Your task to perform on an android device: open app "Speedtest by Ookla" (install if not already installed) and go to login screen Image 0: 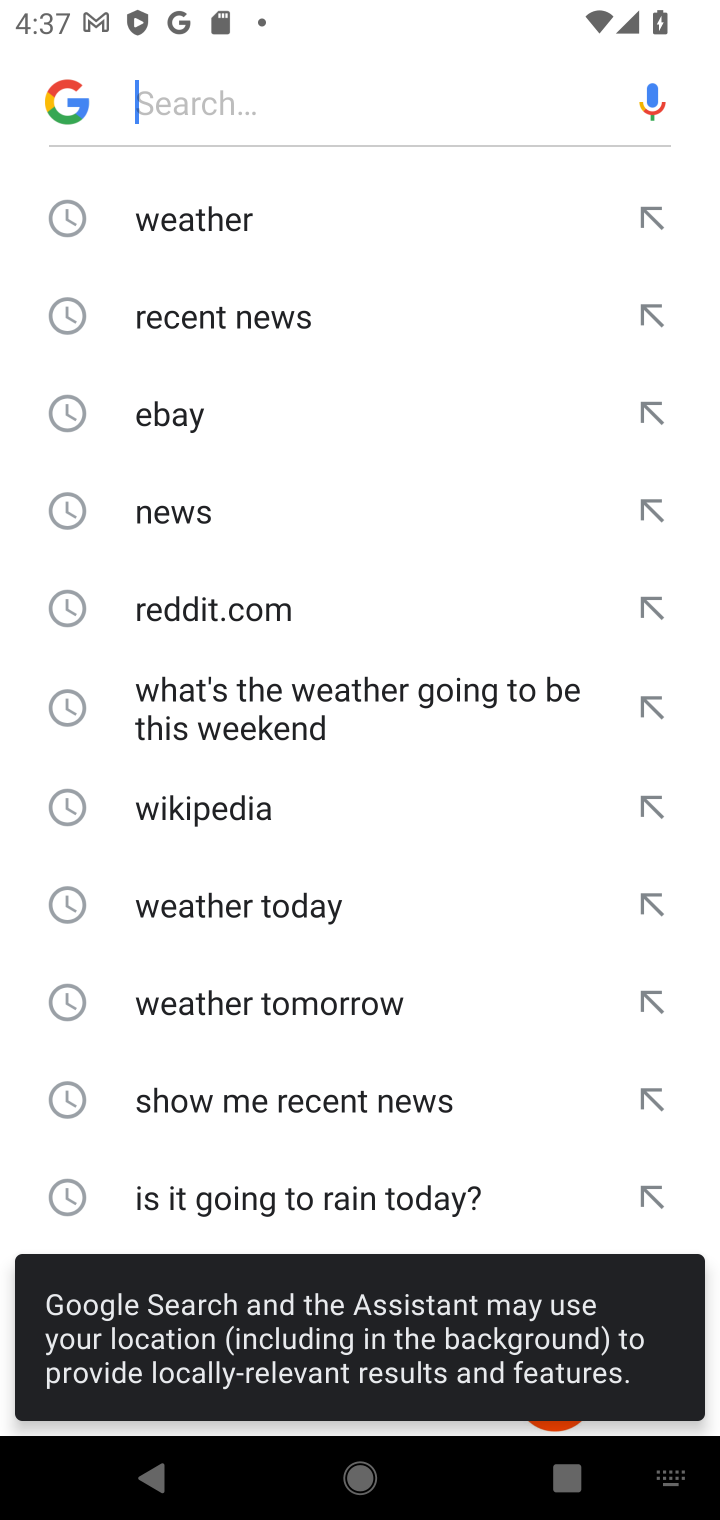
Step 0: press home button
Your task to perform on an android device: open app "Speedtest by Ookla" (install if not already installed) and go to login screen Image 1: 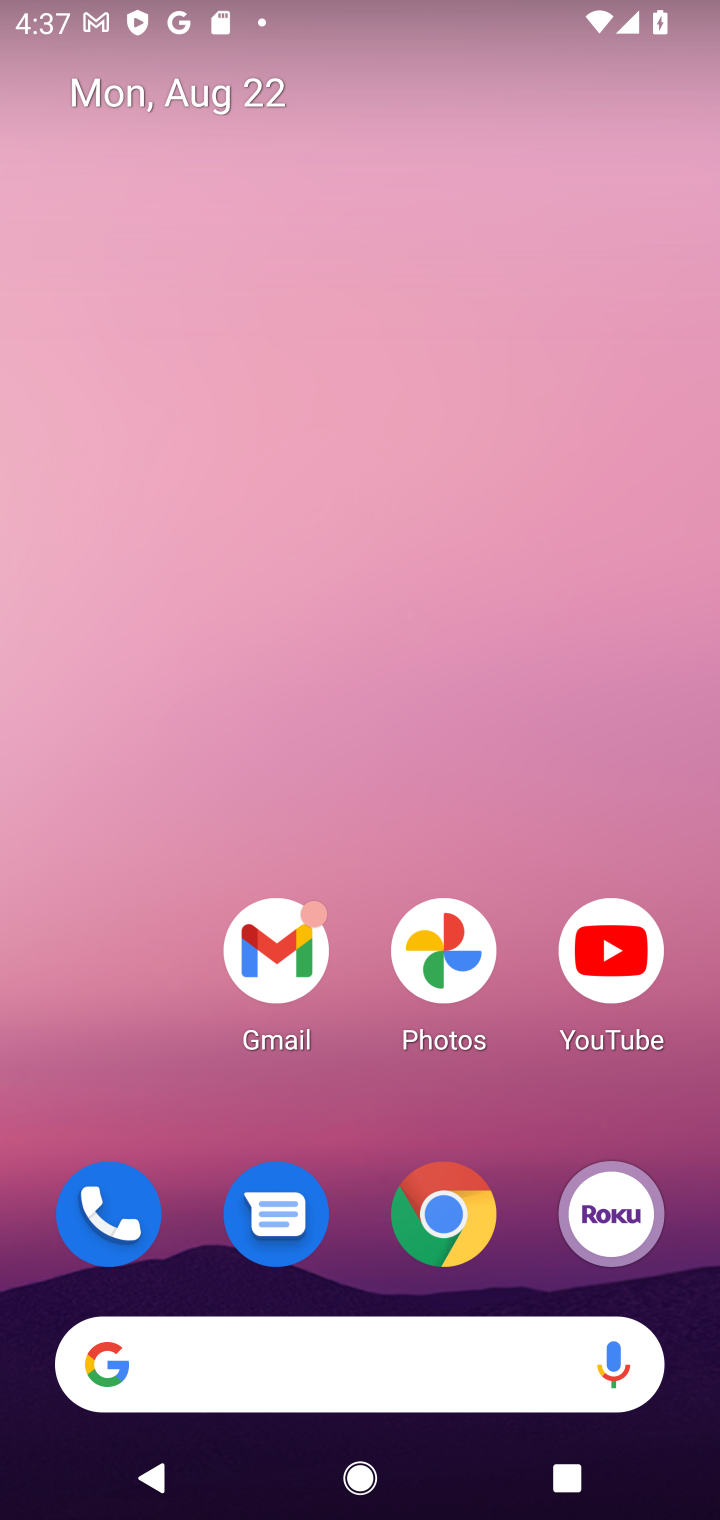
Step 1: drag from (519, 1157) to (527, 334)
Your task to perform on an android device: open app "Speedtest by Ookla" (install if not already installed) and go to login screen Image 2: 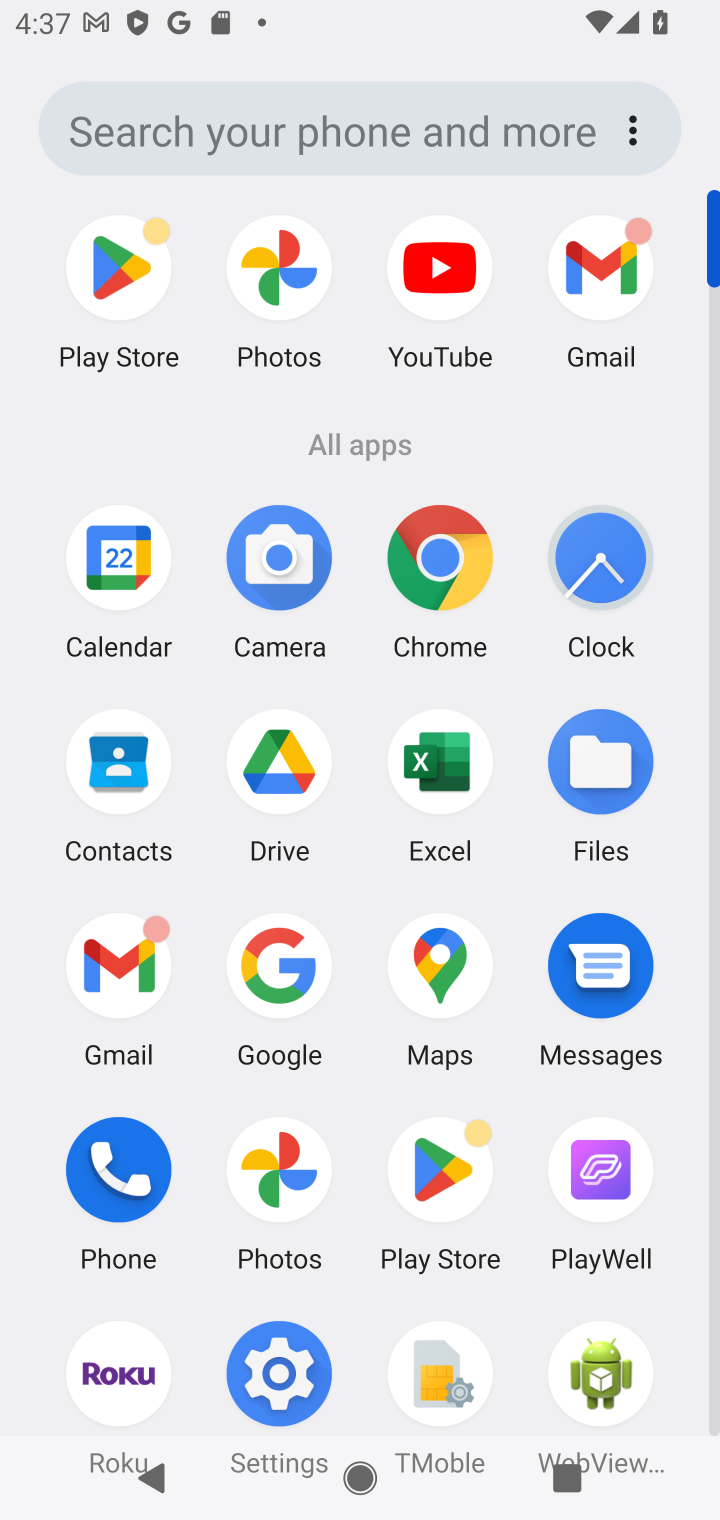
Step 2: click (462, 1161)
Your task to perform on an android device: open app "Speedtest by Ookla" (install if not already installed) and go to login screen Image 3: 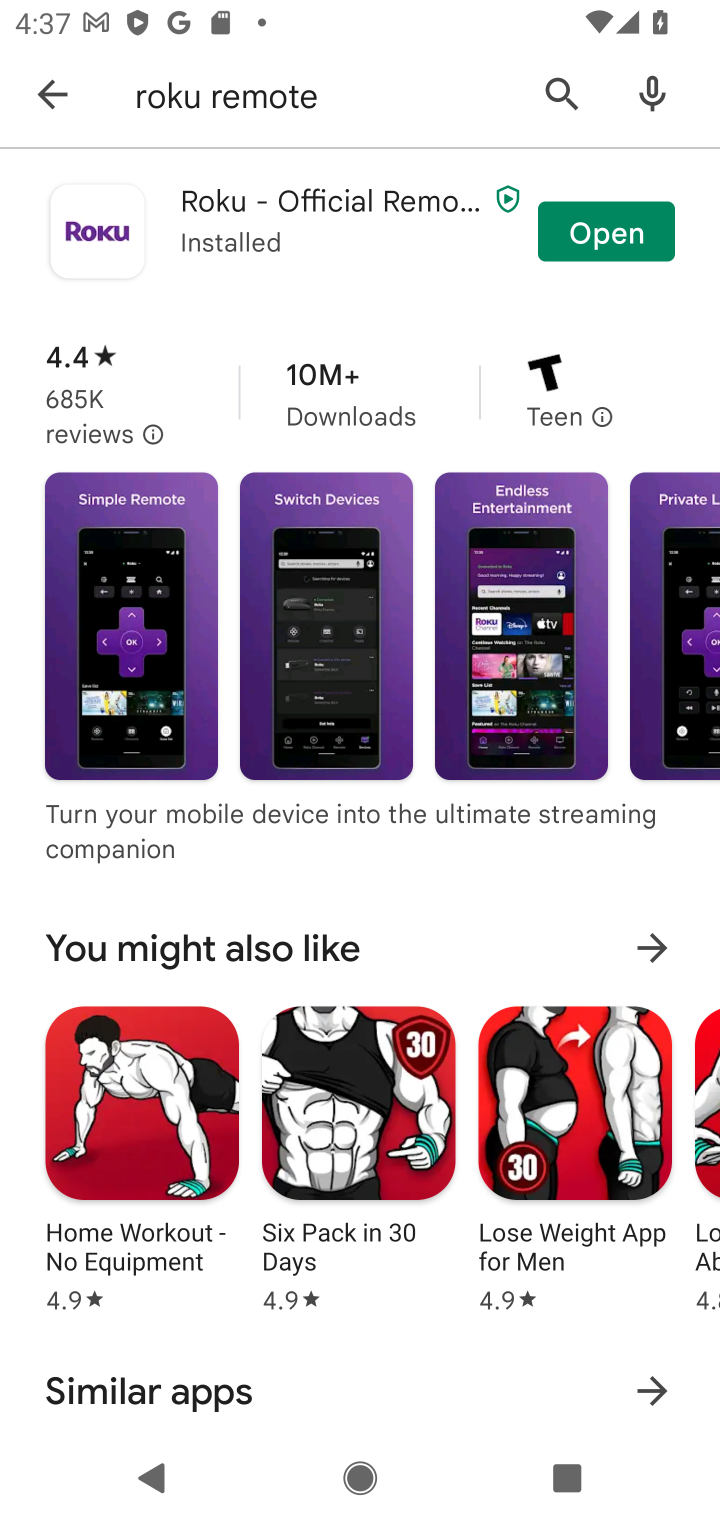
Step 3: click (554, 91)
Your task to perform on an android device: open app "Speedtest by Ookla" (install if not already installed) and go to login screen Image 4: 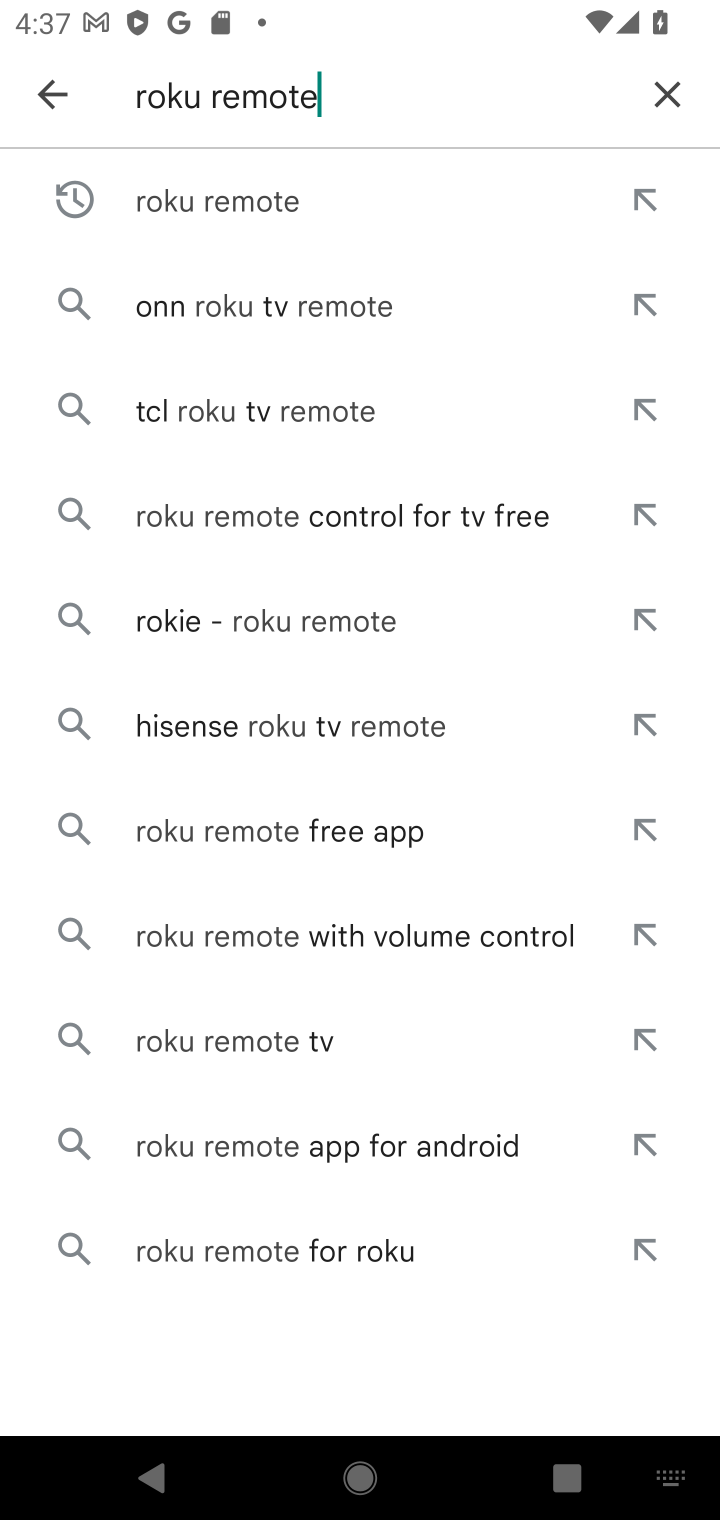
Step 4: click (657, 87)
Your task to perform on an android device: open app "Speedtest by Ookla" (install if not already installed) and go to login screen Image 5: 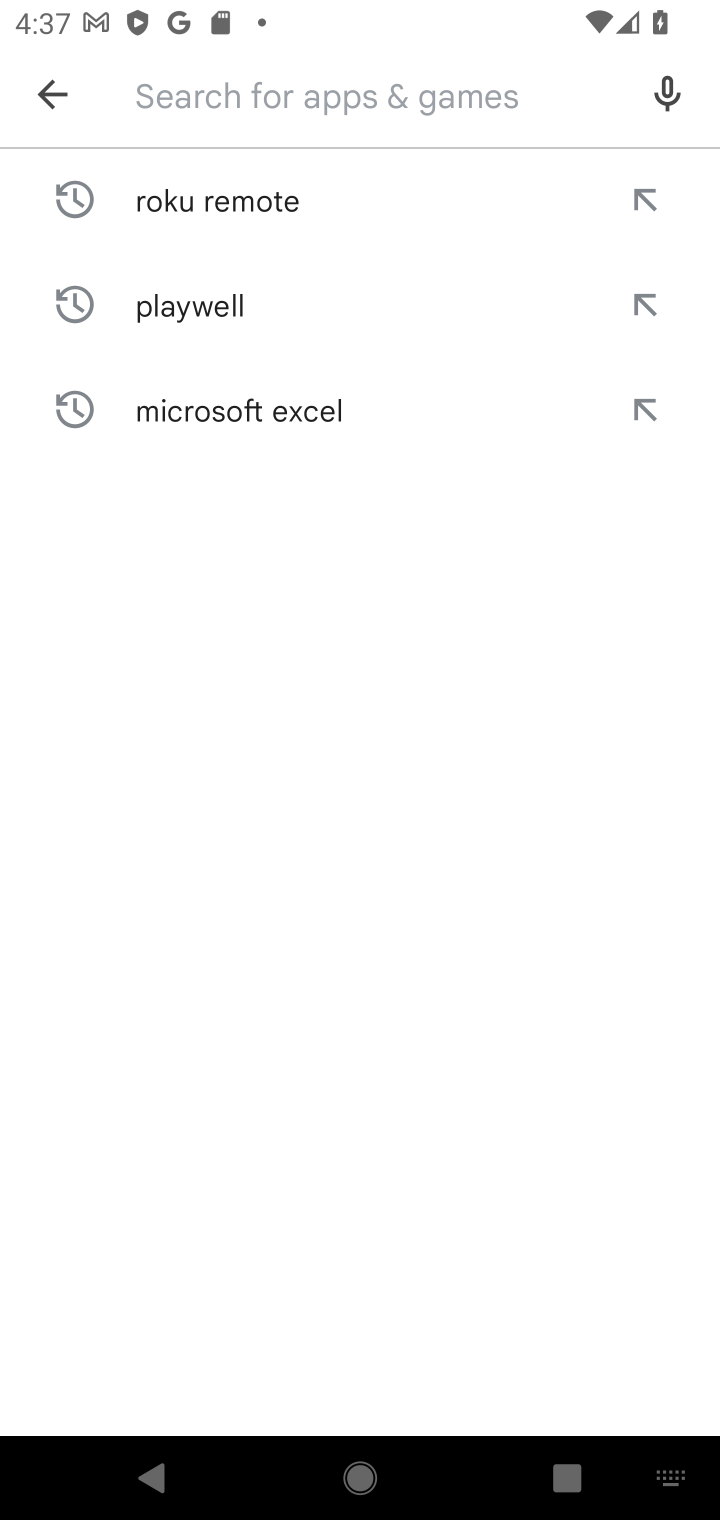
Step 5: type "speed test by ookla"
Your task to perform on an android device: open app "Speedtest by Ookla" (install if not already installed) and go to login screen Image 6: 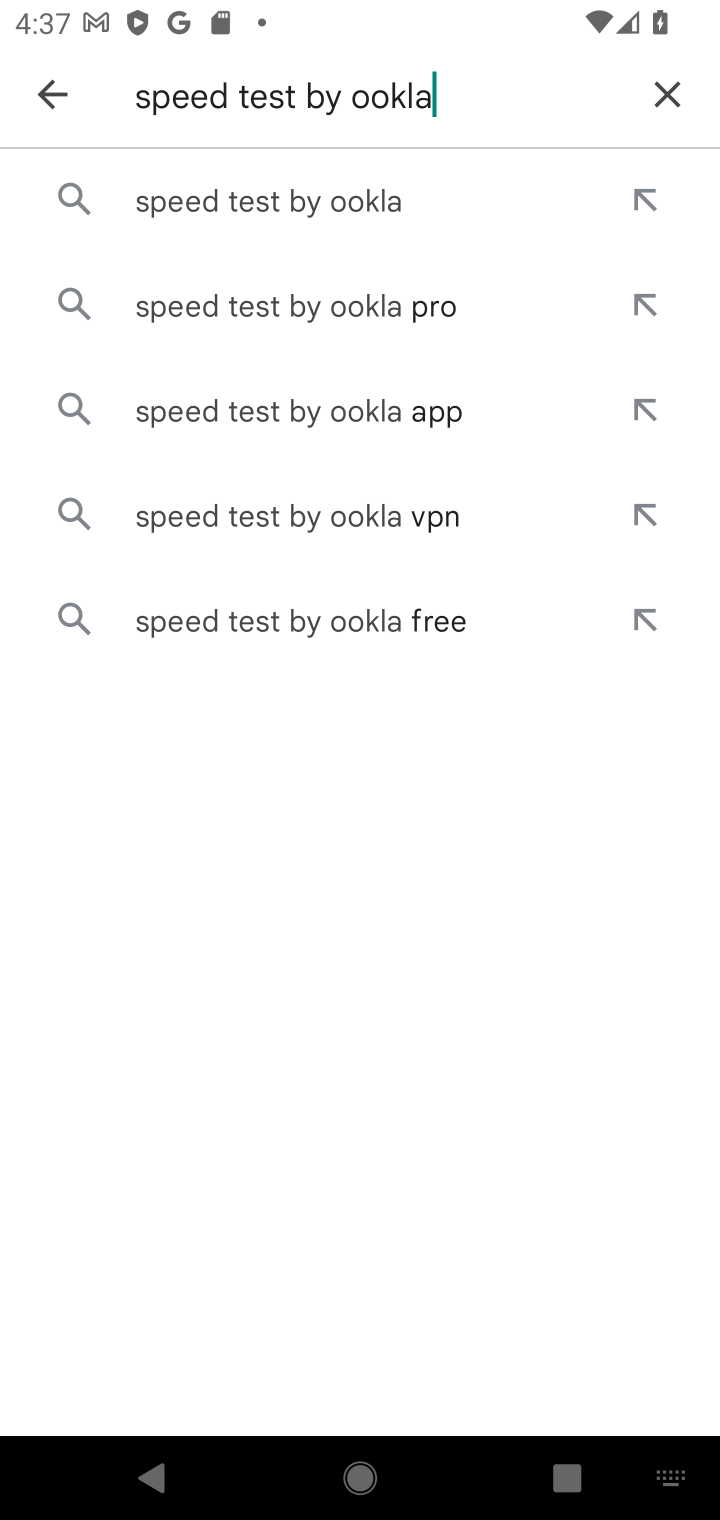
Step 6: click (262, 188)
Your task to perform on an android device: open app "Speedtest by Ookla" (install if not already installed) and go to login screen Image 7: 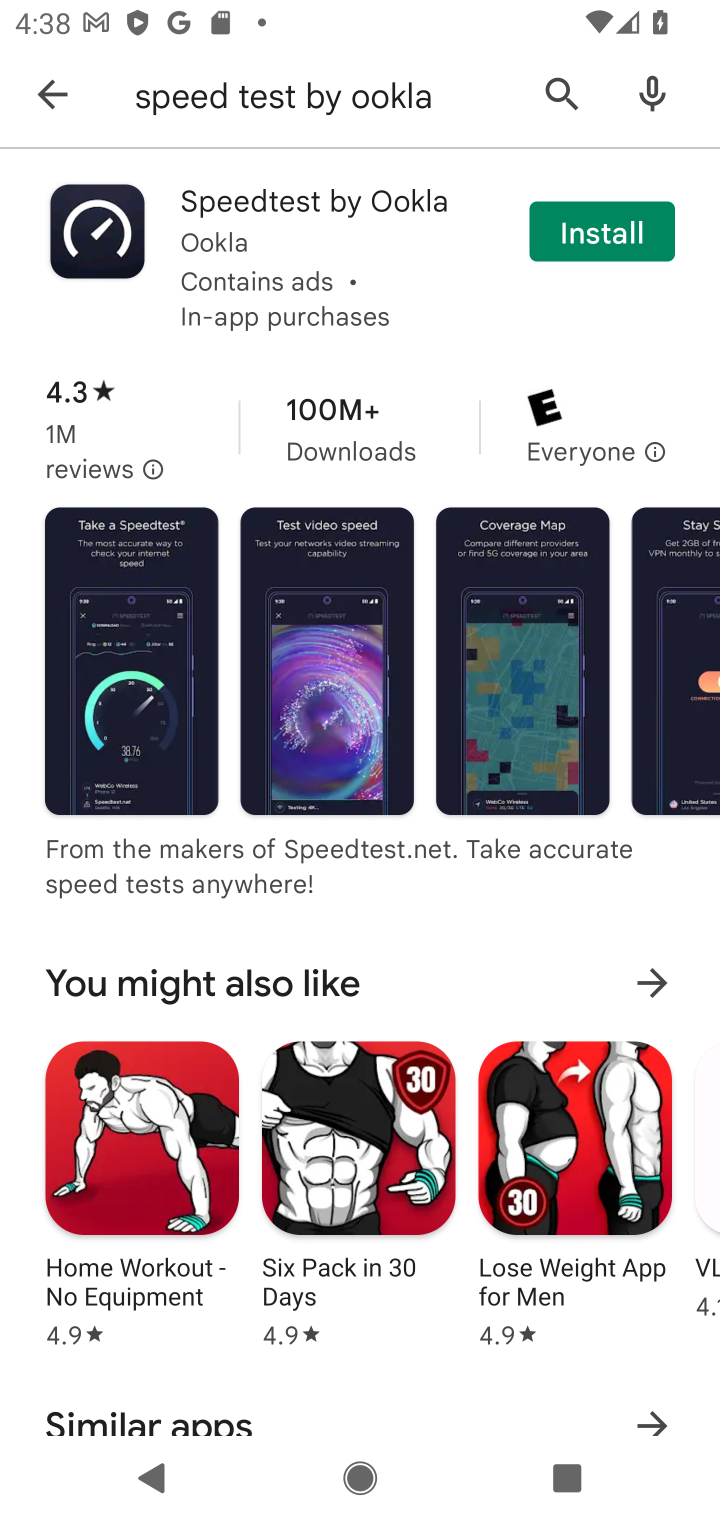
Step 7: click (593, 237)
Your task to perform on an android device: open app "Speedtest by Ookla" (install if not already installed) and go to login screen Image 8: 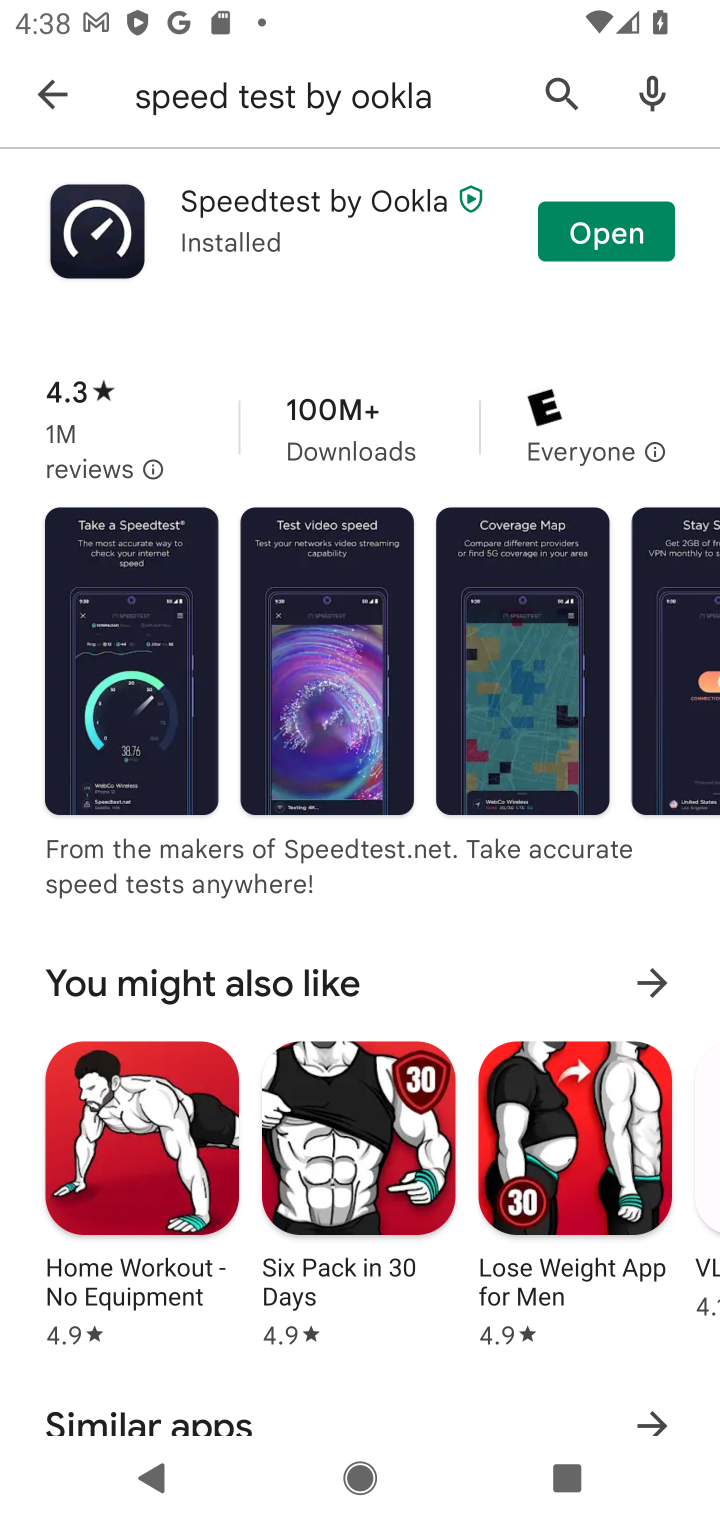
Step 8: click (599, 235)
Your task to perform on an android device: open app "Speedtest by Ookla" (install if not already installed) and go to login screen Image 9: 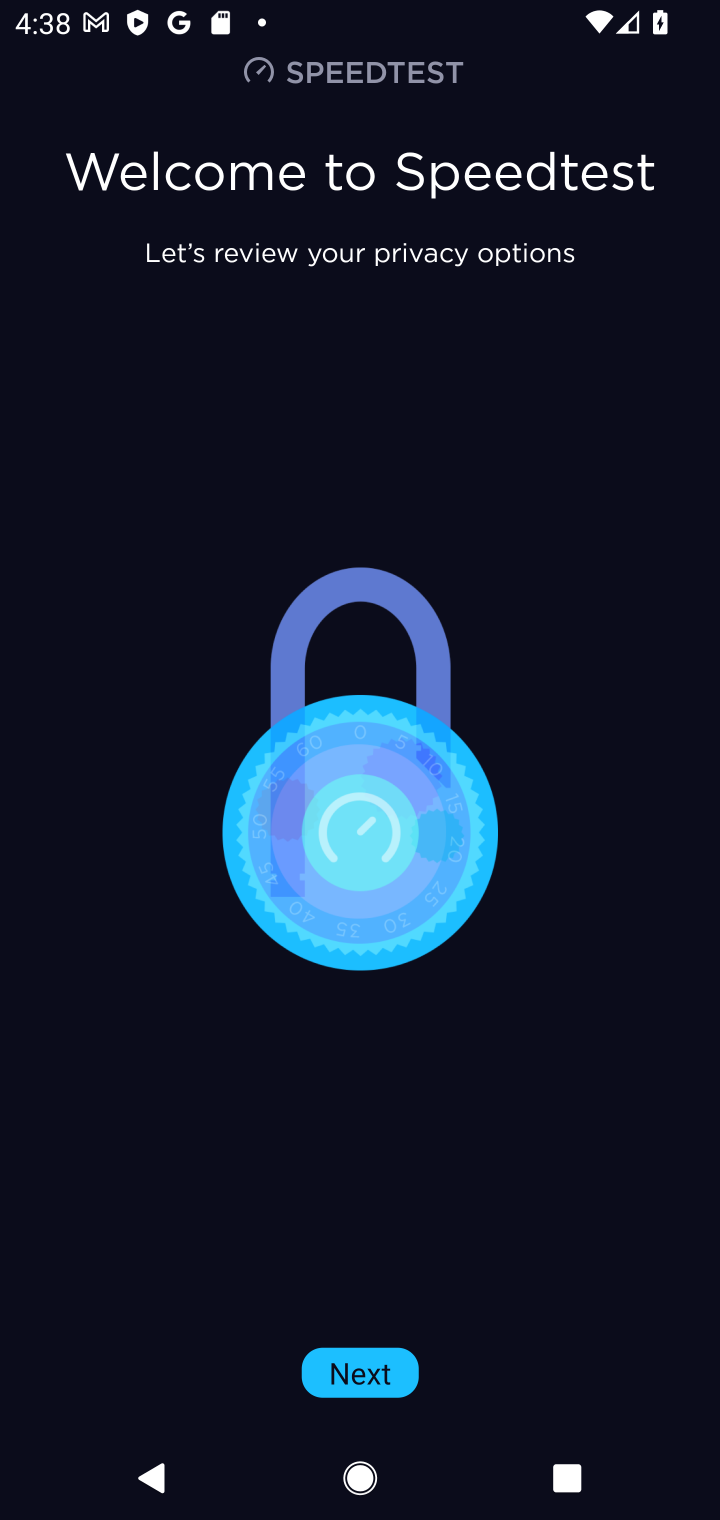
Step 9: task complete